Your task to perform on an android device: Go to Amazon Image 0: 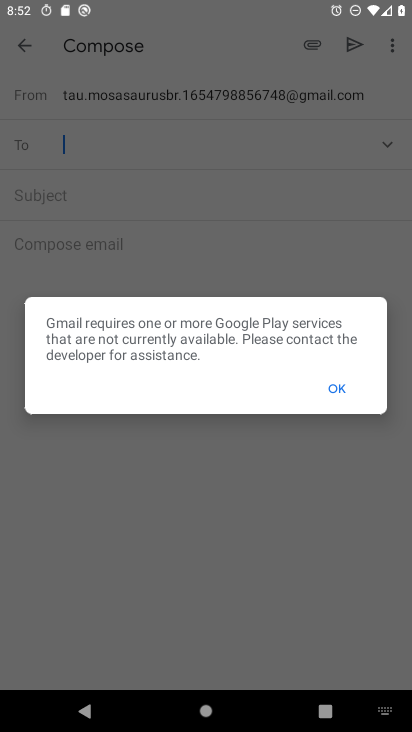
Step 0: press home button
Your task to perform on an android device: Go to Amazon Image 1: 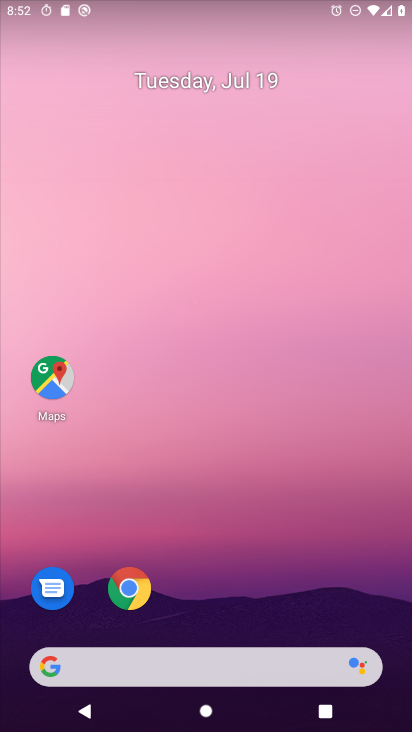
Step 1: drag from (194, 594) to (238, 122)
Your task to perform on an android device: Go to Amazon Image 2: 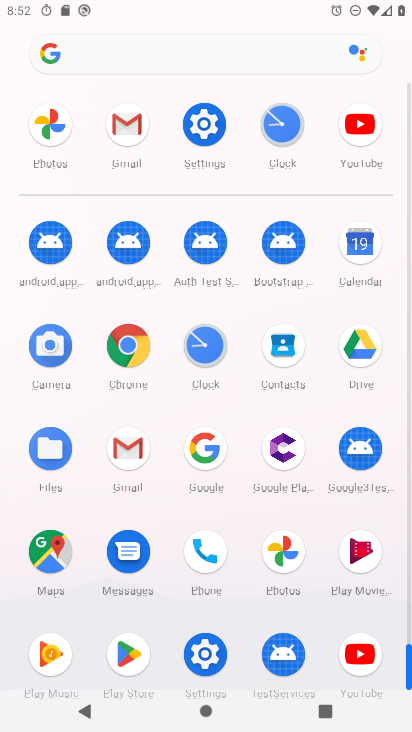
Step 2: click (139, 365)
Your task to perform on an android device: Go to Amazon Image 3: 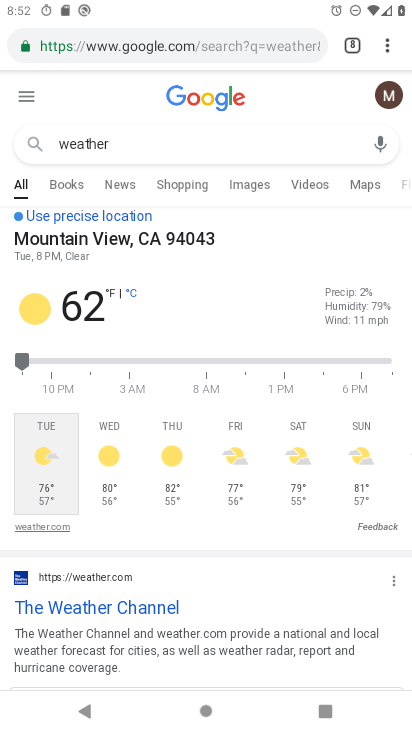
Step 3: click (356, 50)
Your task to perform on an android device: Go to Amazon Image 4: 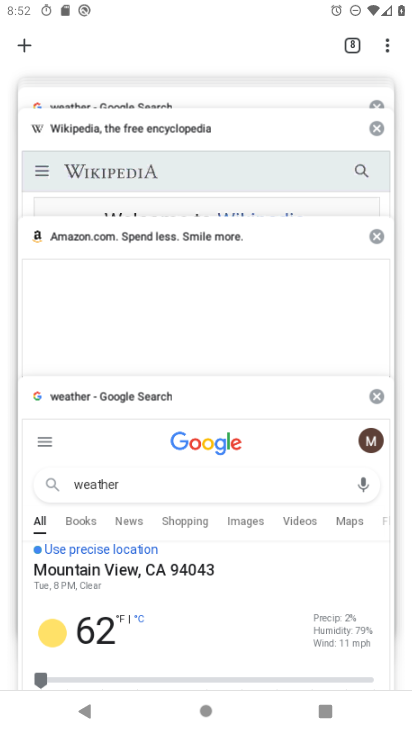
Step 4: click (19, 44)
Your task to perform on an android device: Go to Amazon Image 5: 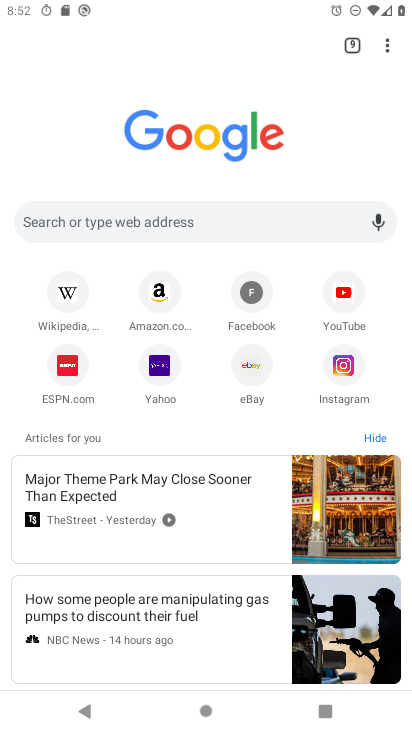
Step 5: click (167, 307)
Your task to perform on an android device: Go to Amazon Image 6: 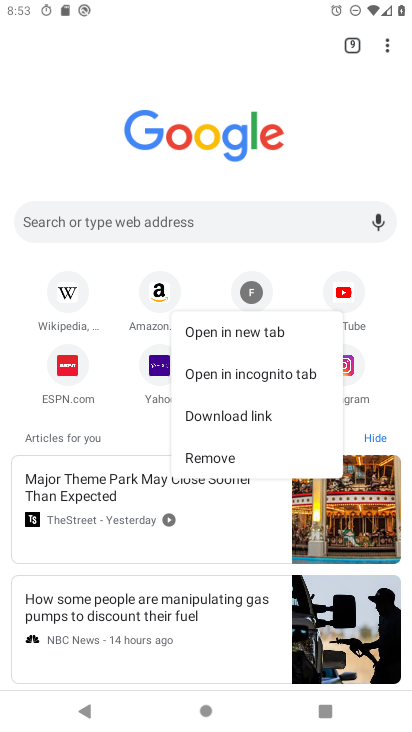
Step 6: click (156, 298)
Your task to perform on an android device: Go to Amazon Image 7: 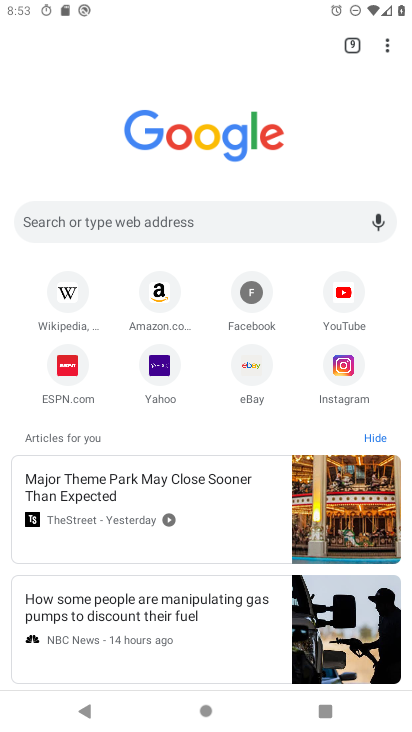
Step 7: click (156, 298)
Your task to perform on an android device: Go to Amazon Image 8: 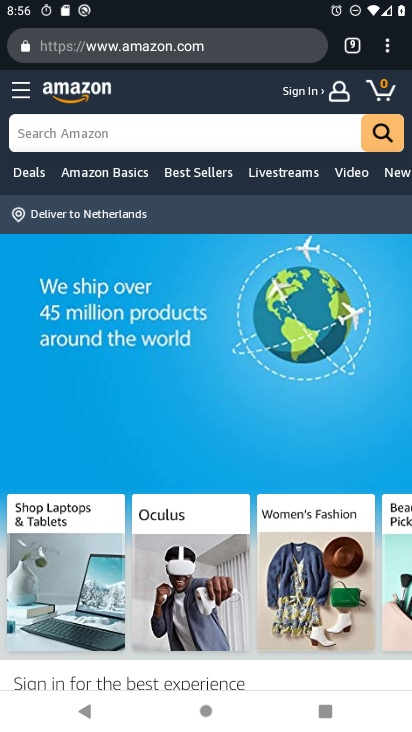
Step 8: task complete